Your task to perform on an android device: move an email to a new category in the gmail app Image 0: 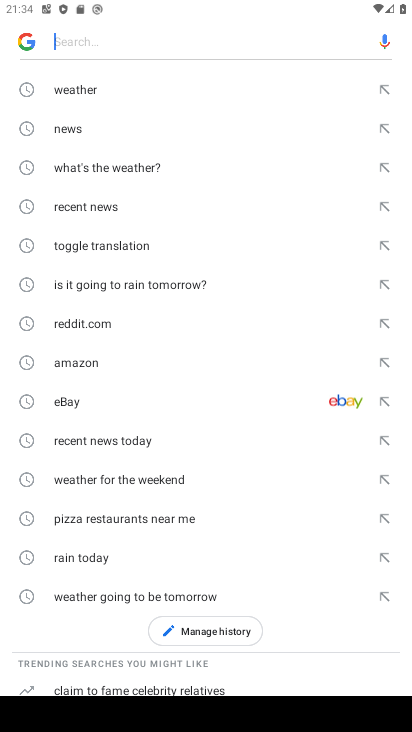
Step 0: press home button
Your task to perform on an android device: move an email to a new category in the gmail app Image 1: 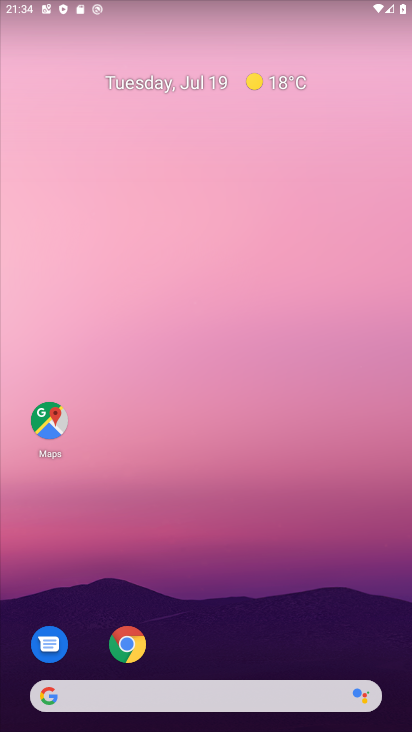
Step 1: drag from (225, 721) to (184, 140)
Your task to perform on an android device: move an email to a new category in the gmail app Image 2: 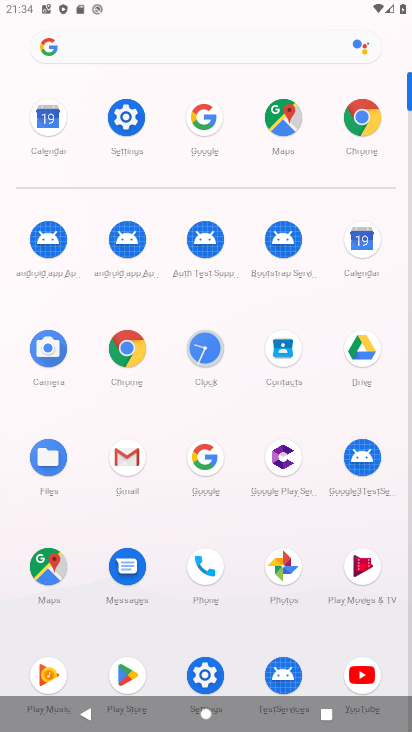
Step 2: click (128, 471)
Your task to perform on an android device: move an email to a new category in the gmail app Image 3: 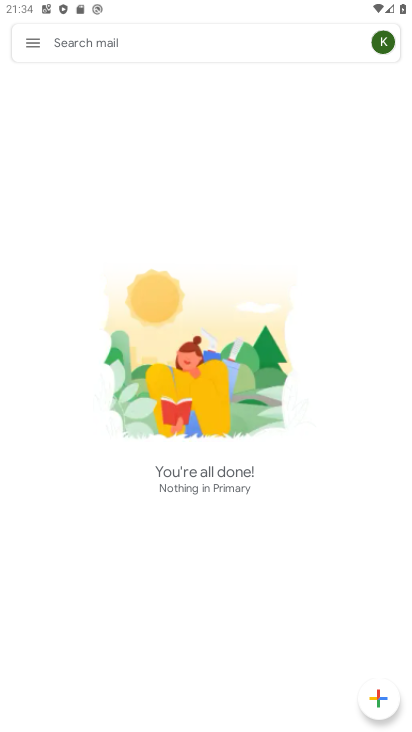
Step 3: click (33, 42)
Your task to perform on an android device: move an email to a new category in the gmail app Image 4: 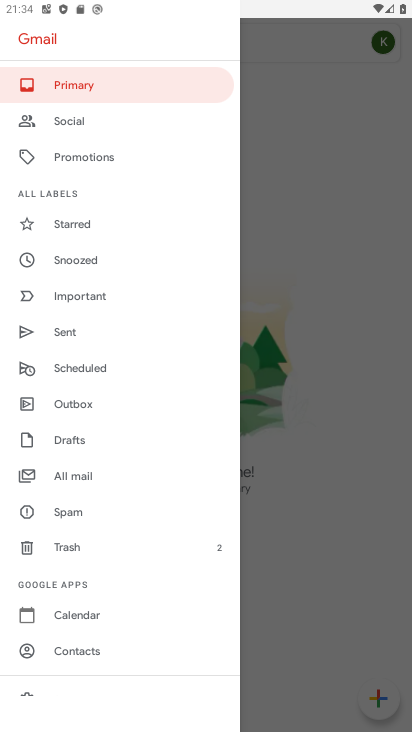
Step 4: drag from (93, 124) to (87, 411)
Your task to perform on an android device: move an email to a new category in the gmail app Image 5: 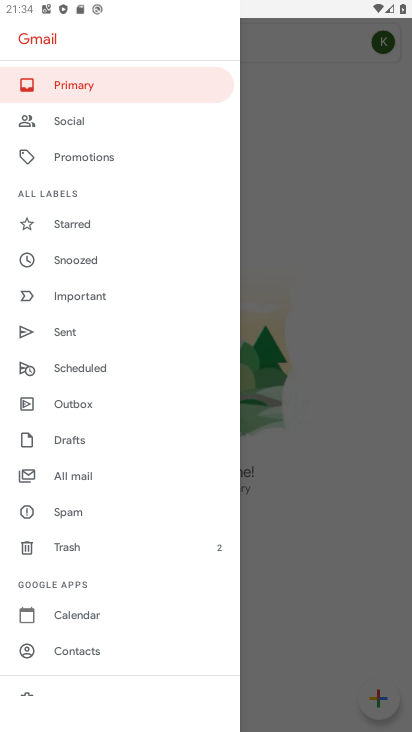
Step 5: click (82, 89)
Your task to perform on an android device: move an email to a new category in the gmail app Image 6: 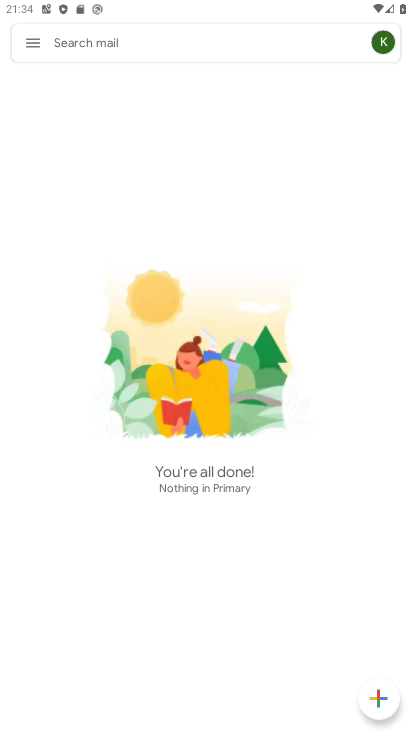
Step 6: task complete